Your task to perform on an android device: What is the news today? Image 0: 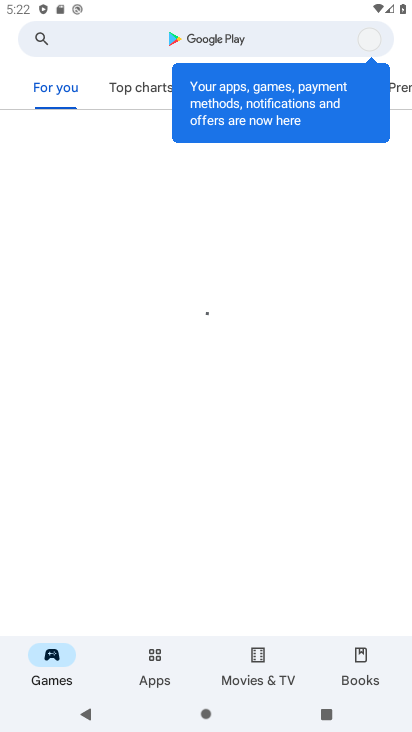
Step 0: press home button
Your task to perform on an android device: What is the news today? Image 1: 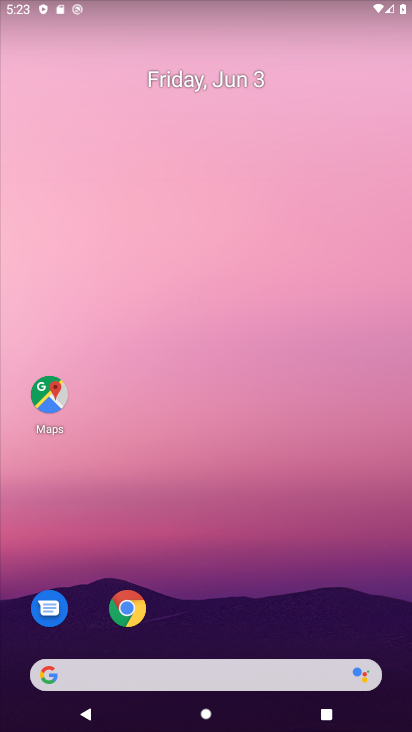
Step 1: click (99, 697)
Your task to perform on an android device: What is the news today? Image 2: 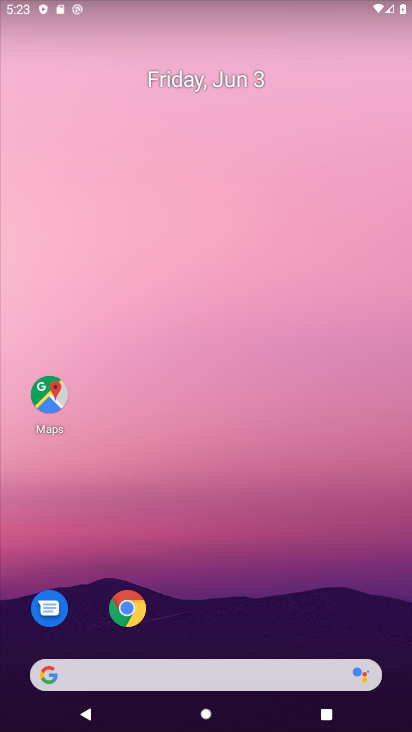
Step 2: click (103, 665)
Your task to perform on an android device: What is the news today? Image 3: 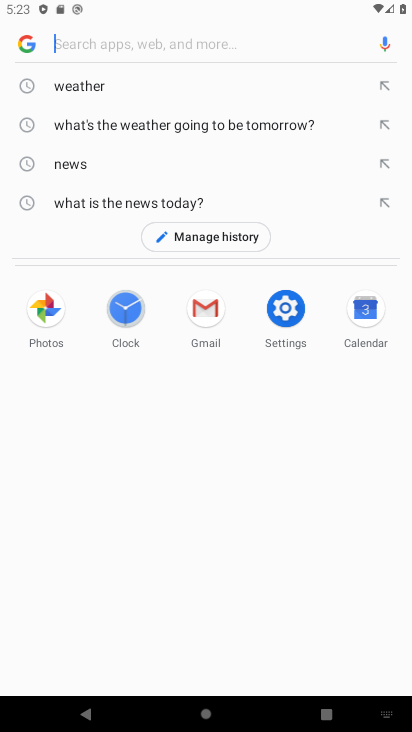
Step 3: type "news today"
Your task to perform on an android device: What is the news today? Image 4: 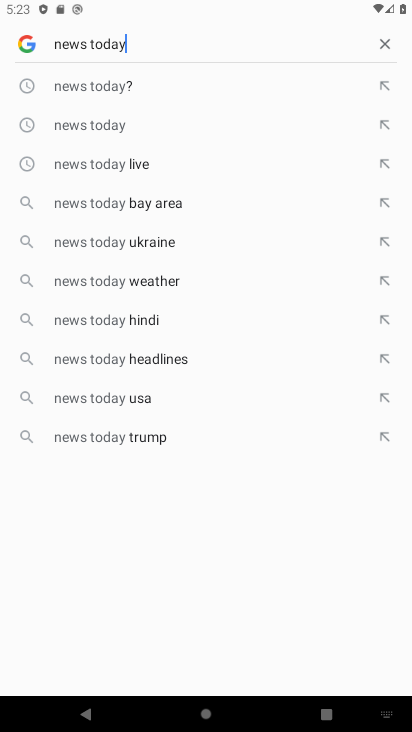
Step 4: click (127, 74)
Your task to perform on an android device: What is the news today? Image 5: 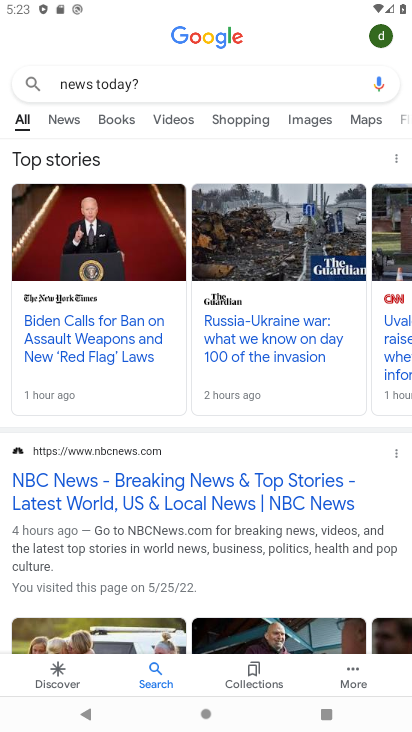
Step 5: task complete